Your task to perform on an android device: Play the latest video from the New York Times Image 0: 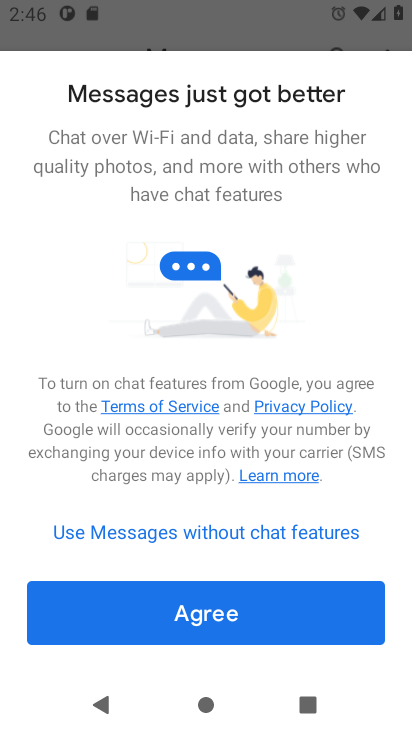
Step 0: press home button
Your task to perform on an android device: Play the latest video from the New York Times Image 1: 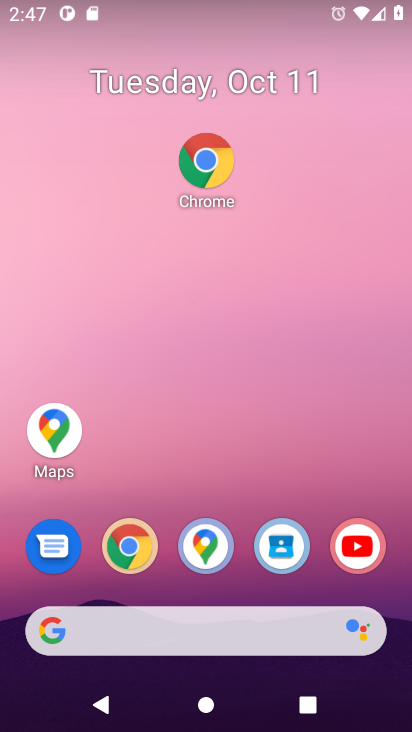
Step 1: click (119, 549)
Your task to perform on an android device: Play the latest video from the New York Times Image 2: 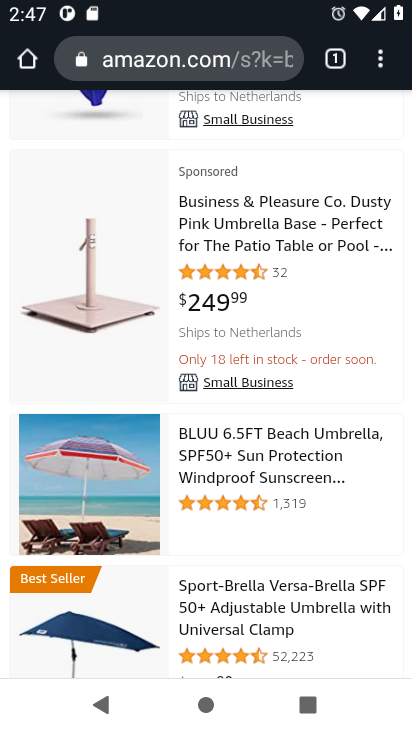
Step 2: click (331, 63)
Your task to perform on an android device: Play the latest video from the New York Times Image 3: 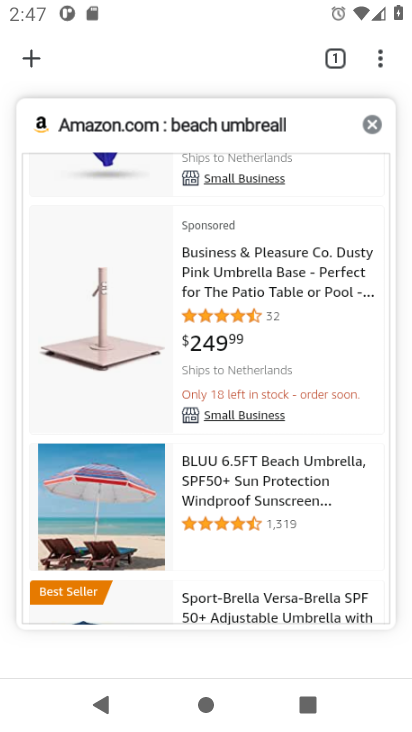
Step 3: click (371, 129)
Your task to perform on an android device: Play the latest video from the New York Times Image 4: 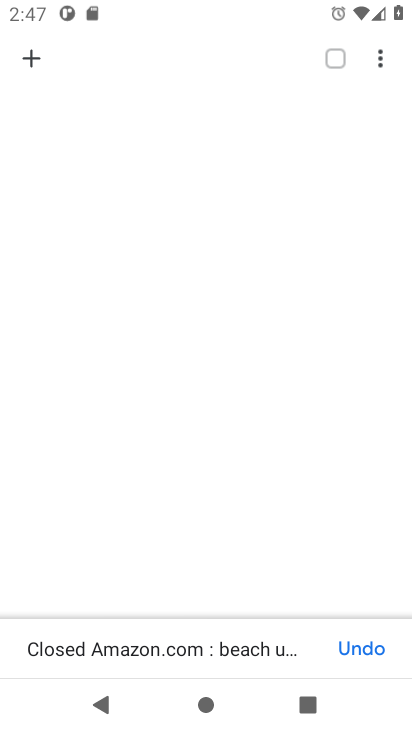
Step 4: click (28, 57)
Your task to perform on an android device: Play the latest video from the New York Times Image 5: 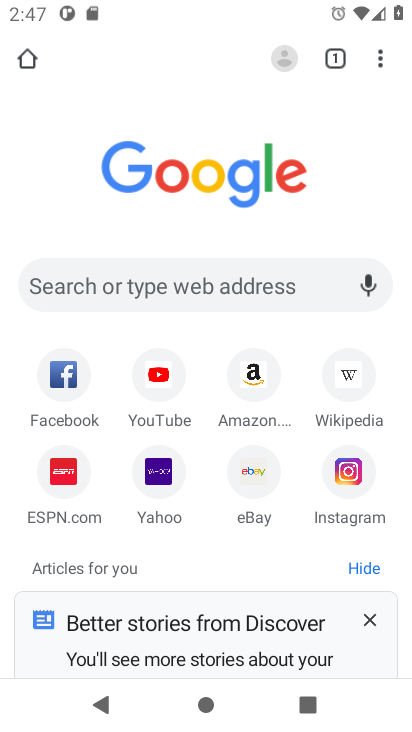
Step 5: click (131, 285)
Your task to perform on an android device: Play the latest video from the New York Times Image 6: 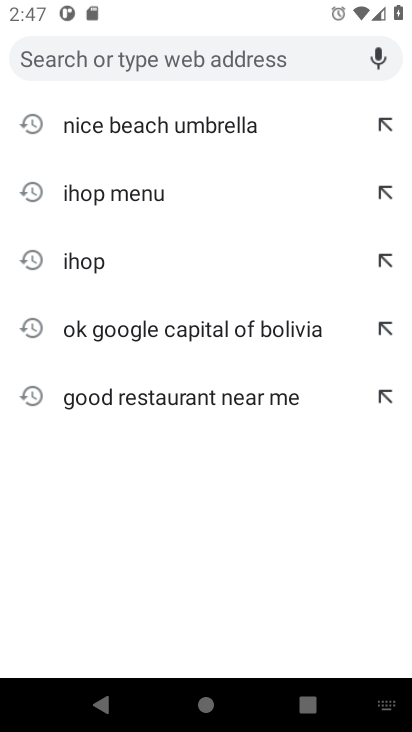
Step 6: type "the new york times latest video"
Your task to perform on an android device: Play the latest video from the New York Times Image 7: 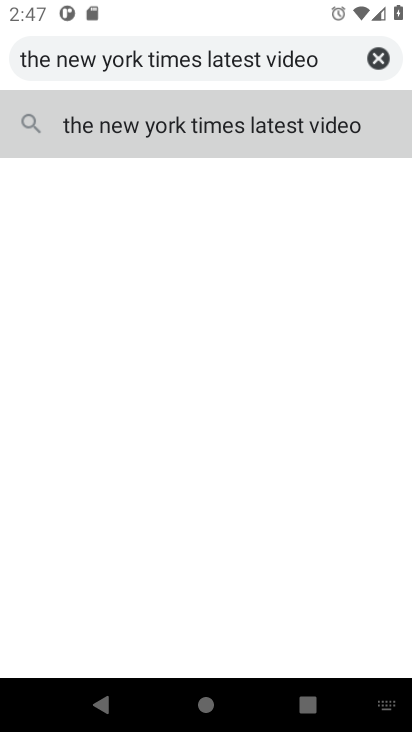
Step 7: press enter
Your task to perform on an android device: Play the latest video from the New York Times Image 8: 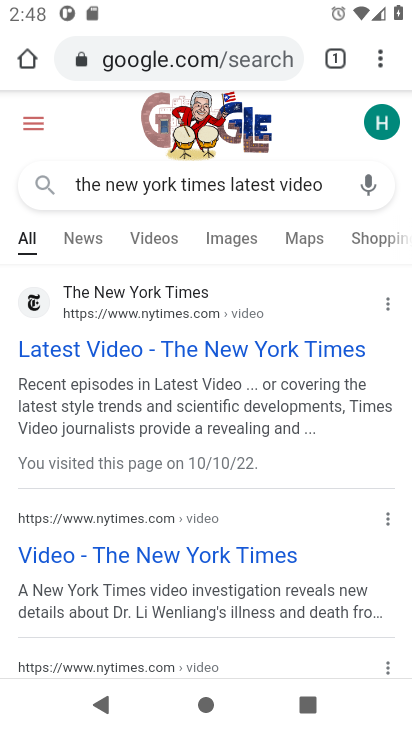
Step 8: click (163, 349)
Your task to perform on an android device: Play the latest video from the New York Times Image 9: 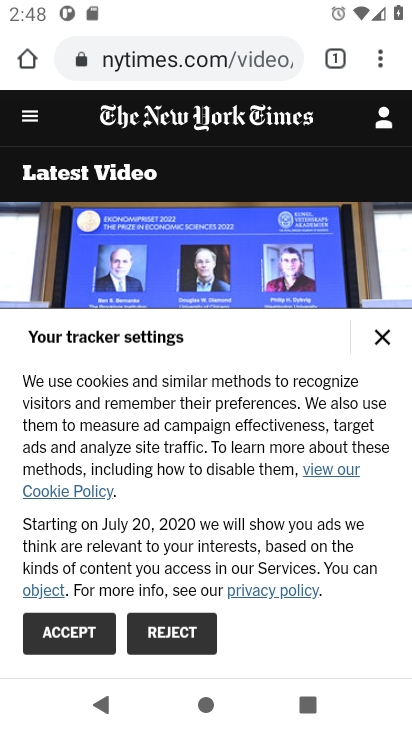
Step 9: click (86, 634)
Your task to perform on an android device: Play the latest video from the New York Times Image 10: 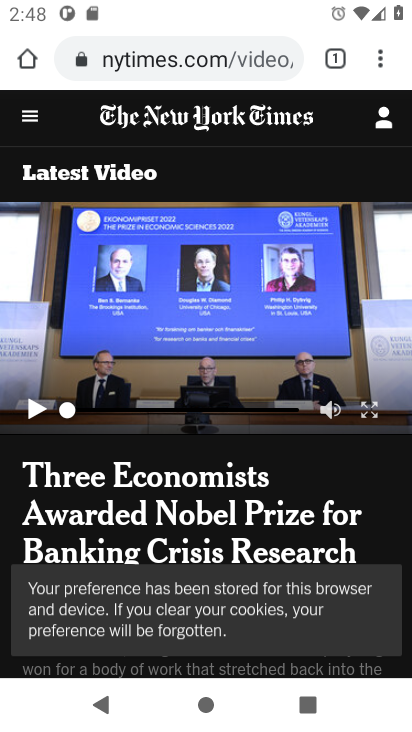
Step 10: click (187, 330)
Your task to perform on an android device: Play the latest video from the New York Times Image 11: 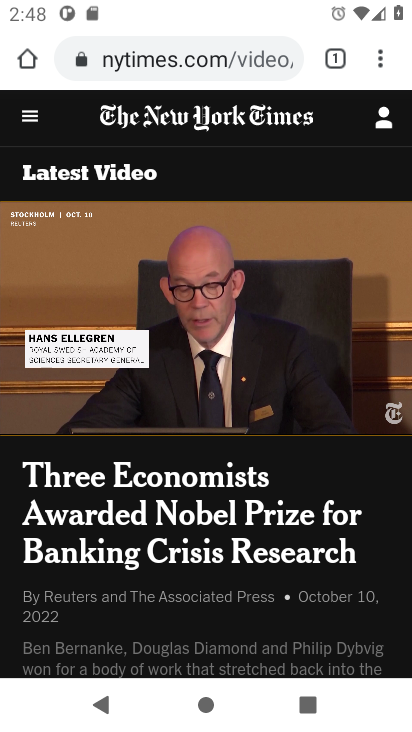
Step 11: task complete